Your task to perform on an android device: What is the recent news? Image 0: 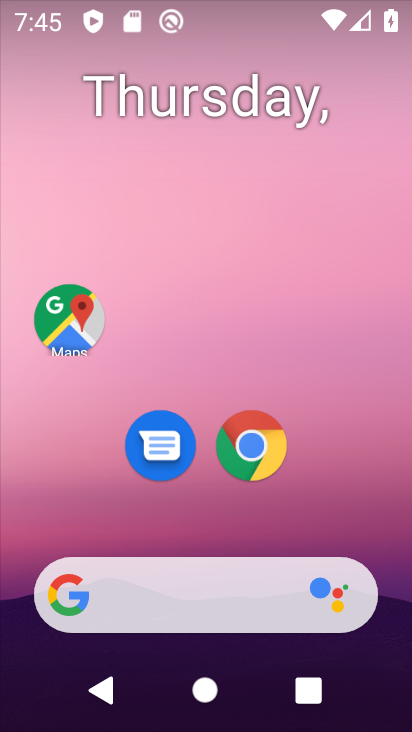
Step 0: click (132, 593)
Your task to perform on an android device: What is the recent news? Image 1: 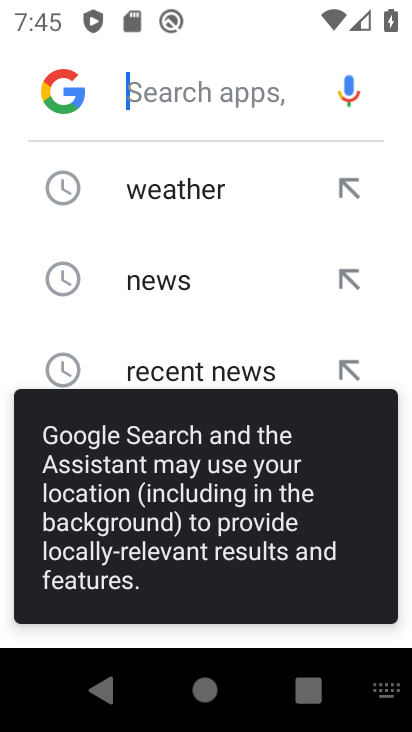
Step 1: click (159, 365)
Your task to perform on an android device: What is the recent news? Image 2: 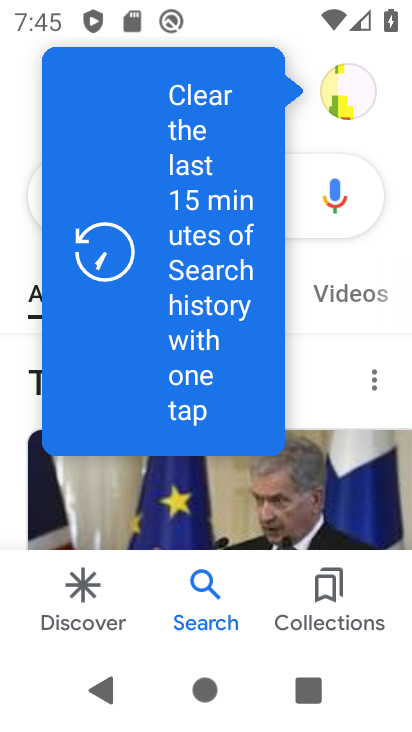
Step 2: drag from (287, 471) to (294, 394)
Your task to perform on an android device: What is the recent news? Image 3: 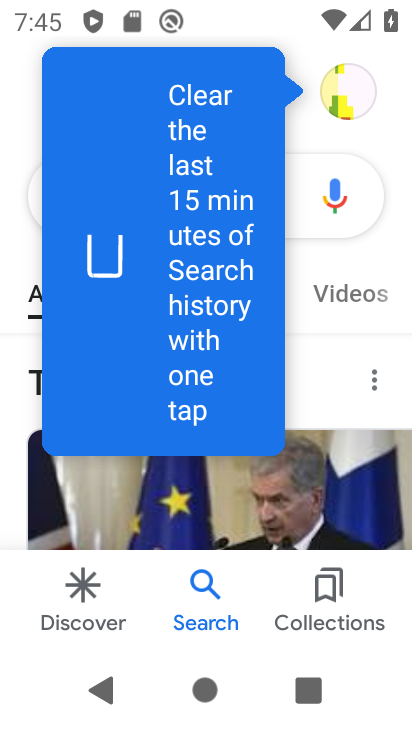
Step 3: drag from (305, 396) to (306, 312)
Your task to perform on an android device: What is the recent news? Image 4: 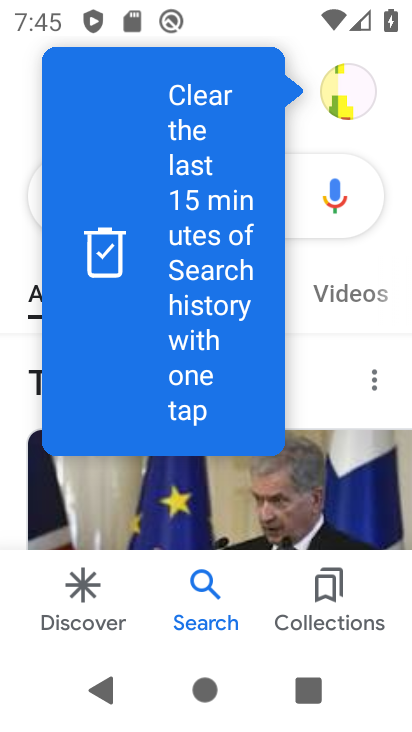
Step 4: click (306, 369)
Your task to perform on an android device: What is the recent news? Image 5: 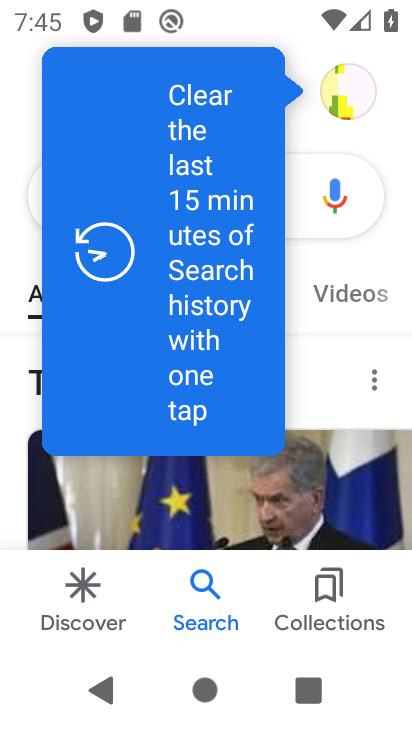
Step 5: click (23, 268)
Your task to perform on an android device: What is the recent news? Image 6: 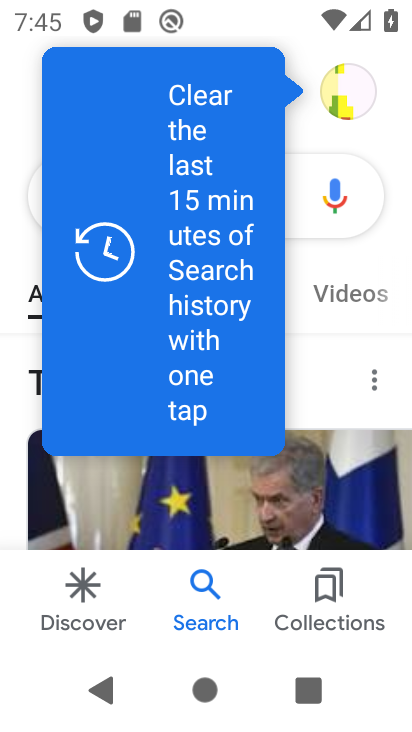
Step 6: click (143, 345)
Your task to perform on an android device: What is the recent news? Image 7: 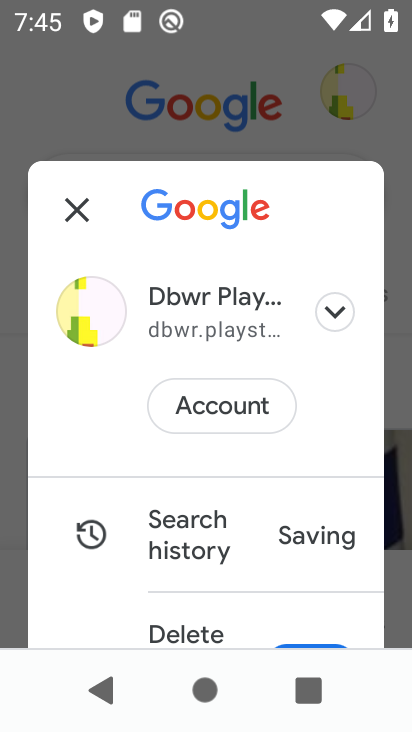
Step 7: click (90, 215)
Your task to perform on an android device: What is the recent news? Image 8: 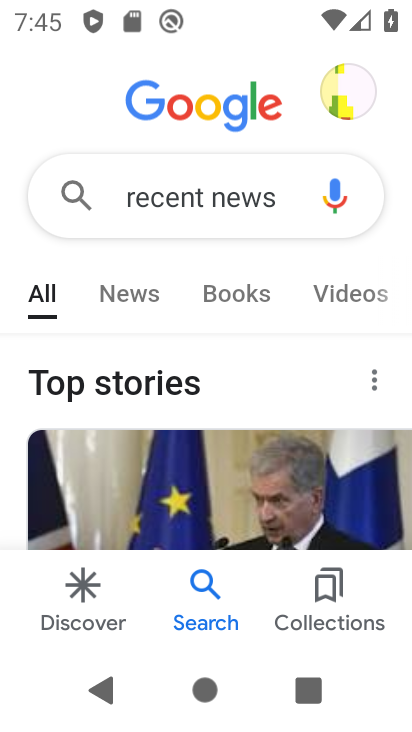
Step 8: click (132, 289)
Your task to perform on an android device: What is the recent news? Image 9: 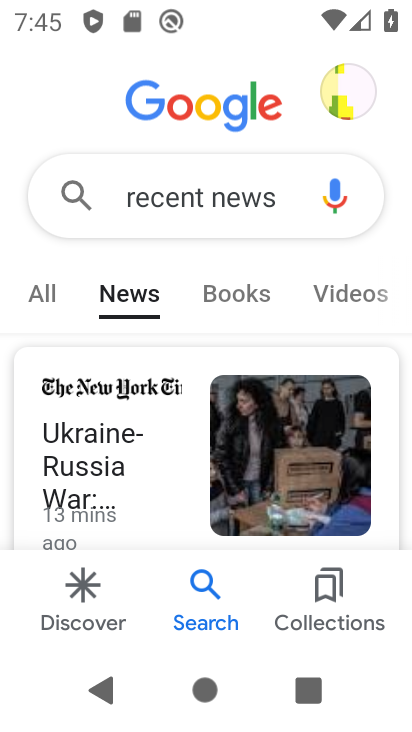
Step 9: drag from (141, 425) to (143, 134)
Your task to perform on an android device: What is the recent news? Image 10: 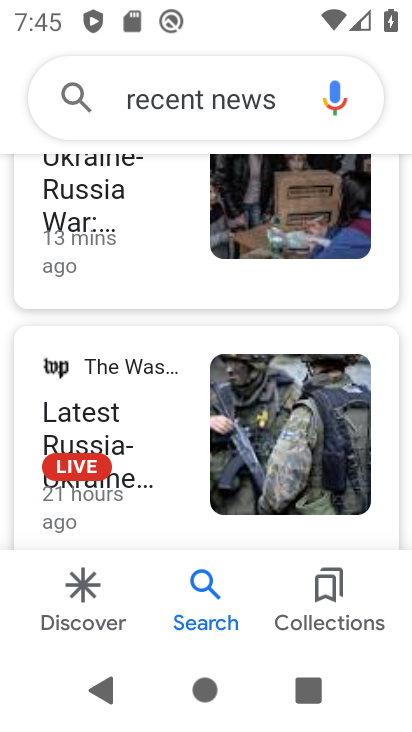
Step 10: click (130, 224)
Your task to perform on an android device: What is the recent news? Image 11: 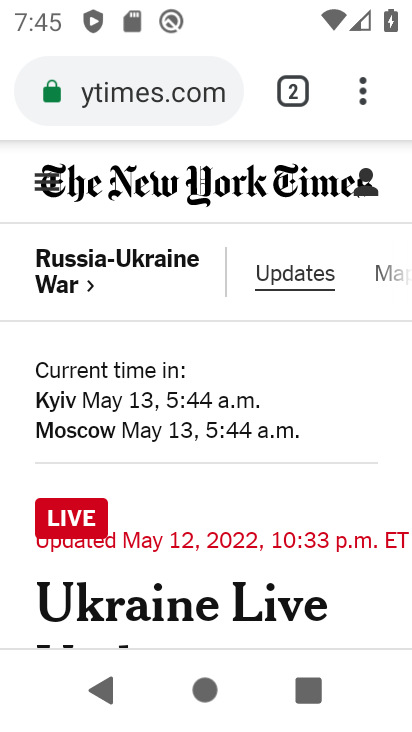
Step 11: task complete